Your task to perform on an android device: turn pop-ups off in chrome Image 0: 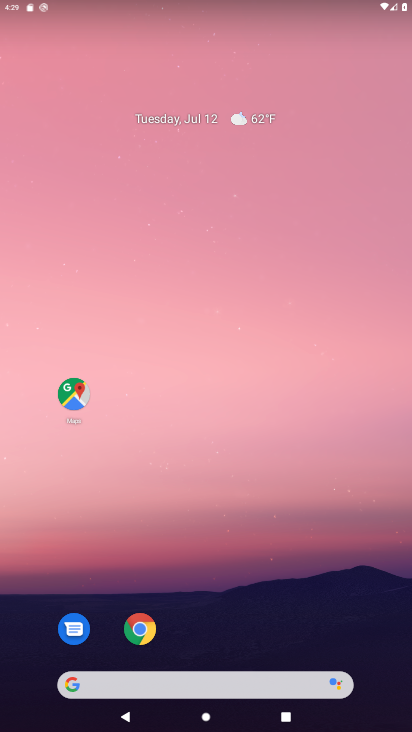
Step 0: click (205, 92)
Your task to perform on an android device: turn pop-ups off in chrome Image 1: 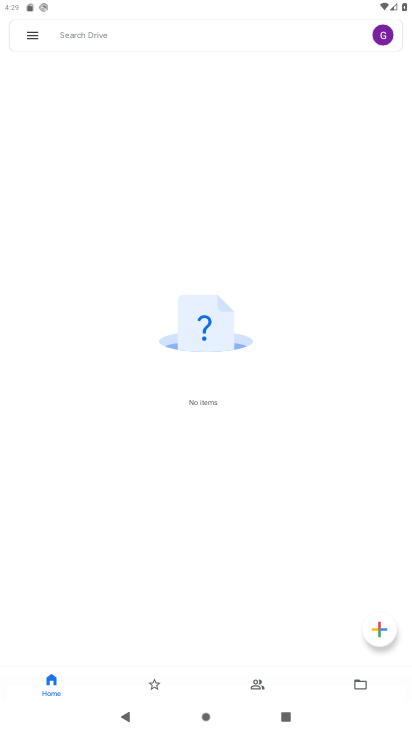
Step 1: press home button
Your task to perform on an android device: turn pop-ups off in chrome Image 2: 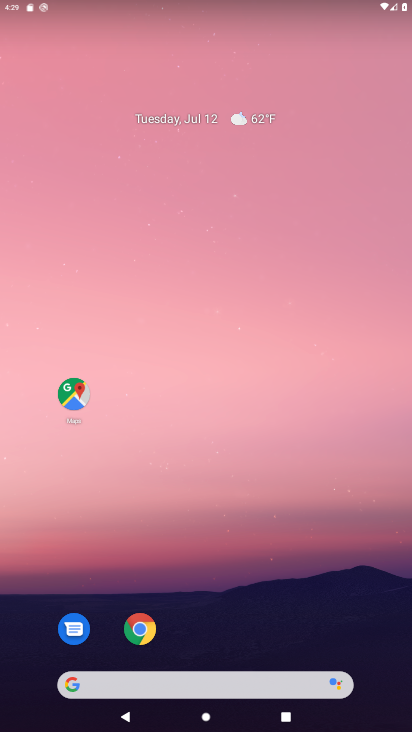
Step 2: drag from (278, 701) to (285, 149)
Your task to perform on an android device: turn pop-ups off in chrome Image 3: 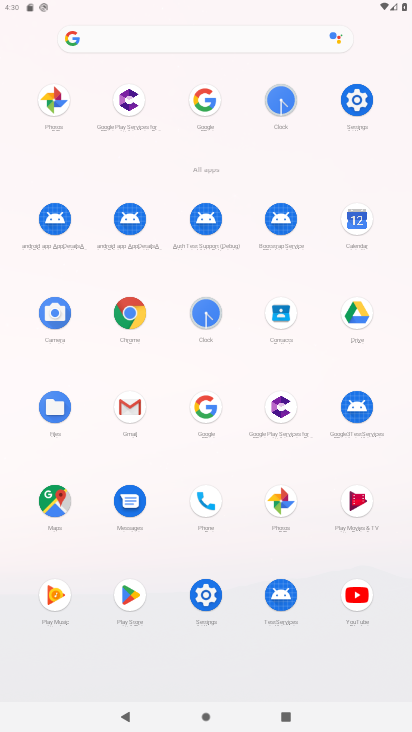
Step 3: click (119, 318)
Your task to perform on an android device: turn pop-ups off in chrome Image 4: 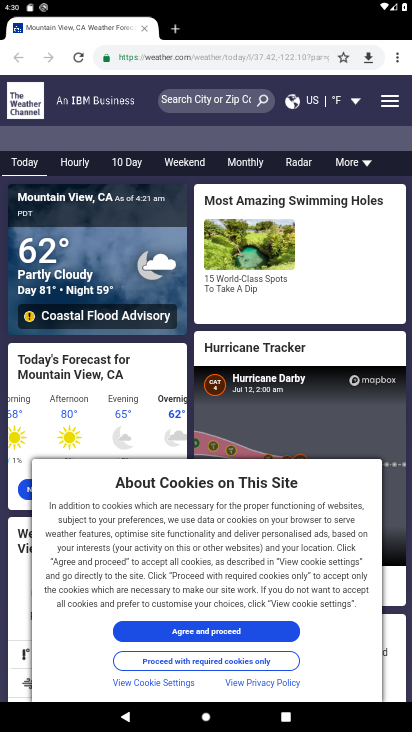
Step 4: drag from (388, 54) to (283, 370)
Your task to perform on an android device: turn pop-ups off in chrome Image 5: 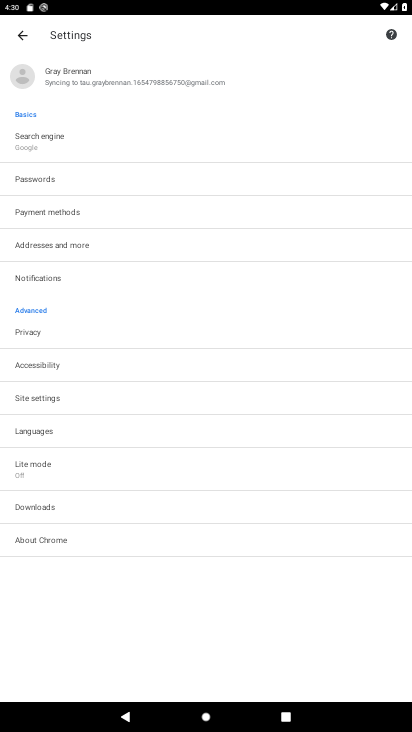
Step 5: click (74, 388)
Your task to perform on an android device: turn pop-ups off in chrome Image 6: 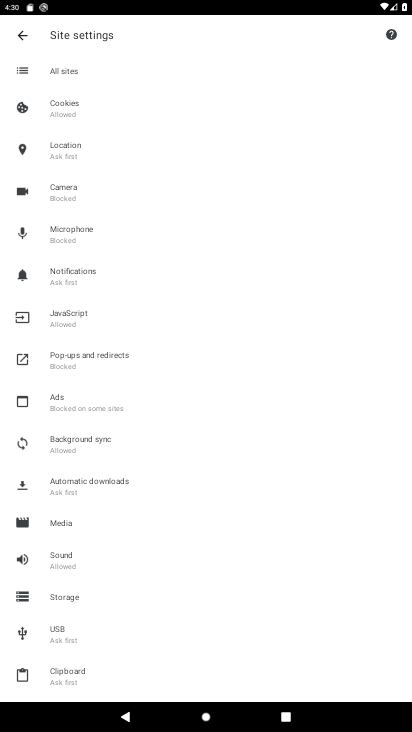
Step 6: click (67, 353)
Your task to perform on an android device: turn pop-ups off in chrome Image 7: 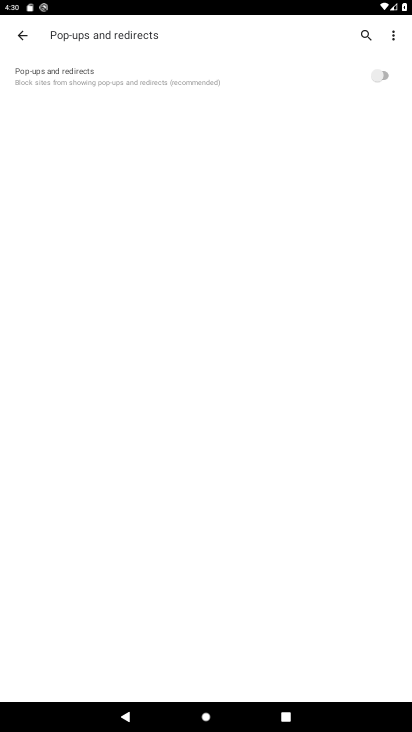
Step 7: task complete